Your task to perform on an android device: change notifications settings Image 0: 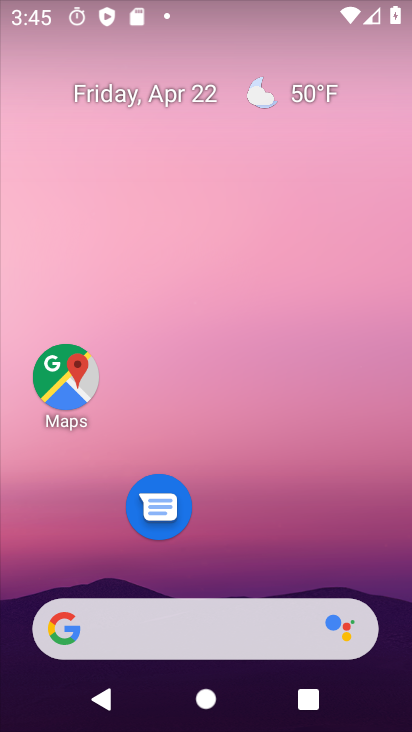
Step 0: drag from (227, 501) to (278, 38)
Your task to perform on an android device: change notifications settings Image 1: 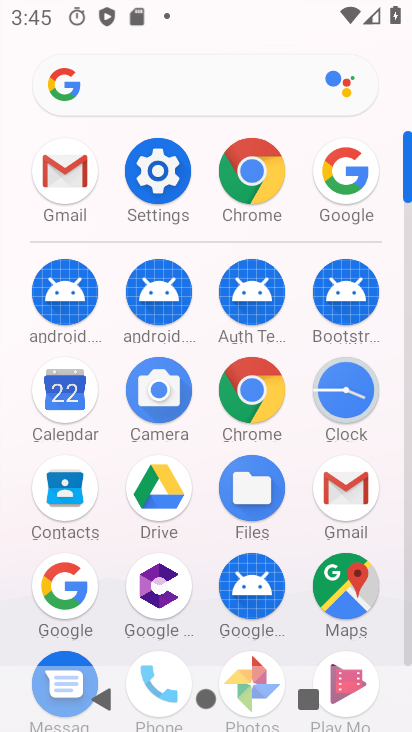
Step 1: click (166, 181)
Your task to perform on an android device: change notifications settings Image 2: 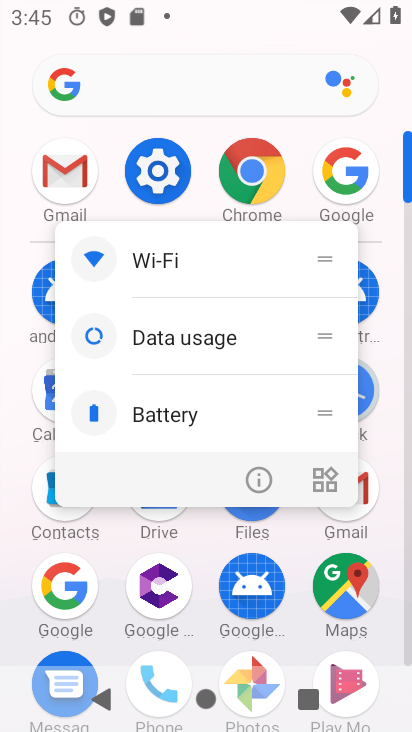
Step 2: click (163, 176)
Your task to perform on an android device: change notifications settings Image 3: 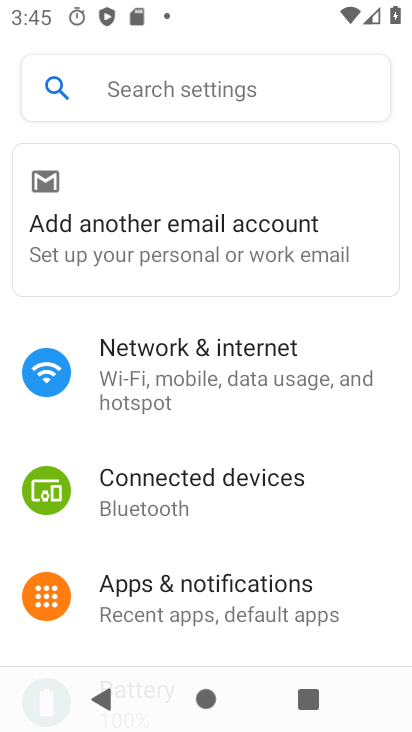
Step 3: click (192, 590)
Your task to perform on an android device: change notifications settings Image 4: 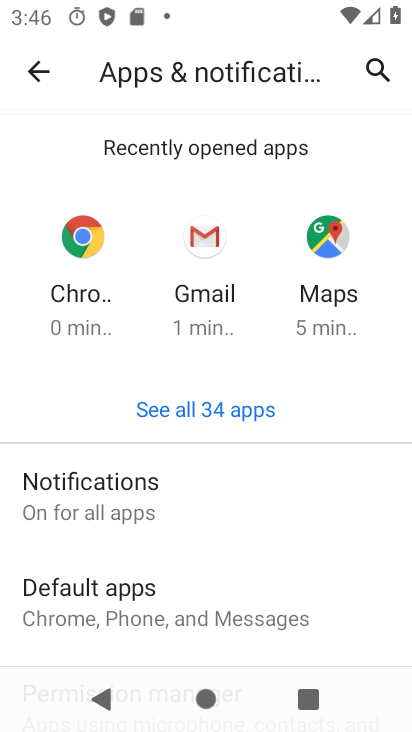
Step 4: drag from (171, 532) to (263, 160)
Your task to perform on an android device: change notifications settings Image 5: 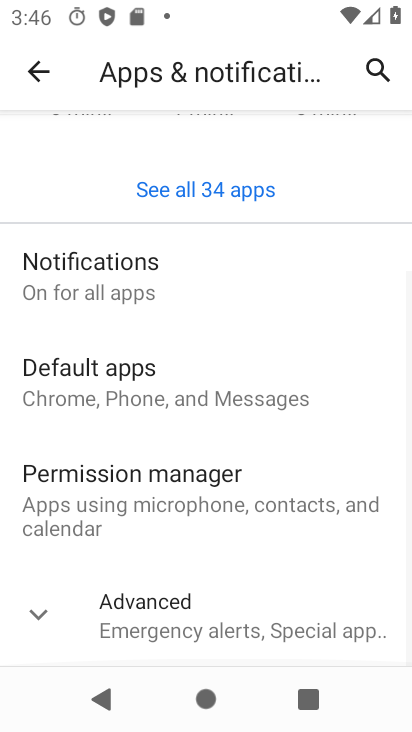
Step 5: click (179, 262)
Your task to perform on an android device: change notifications settings Image 6: 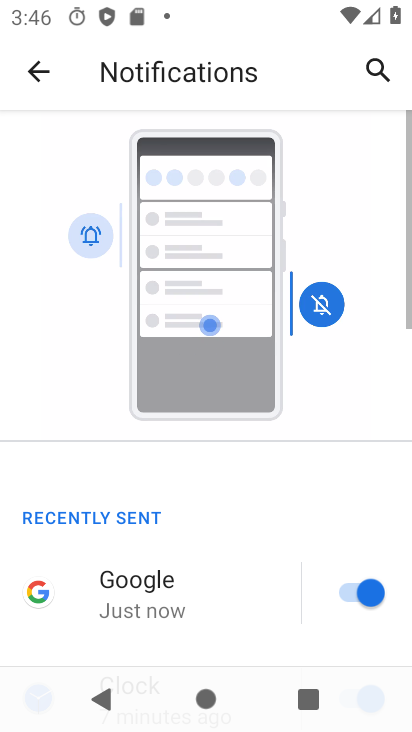
Step 6: drag from (232, 579) to (323, 74)
Your task to perform on an android device: change notifications settings Image 7: 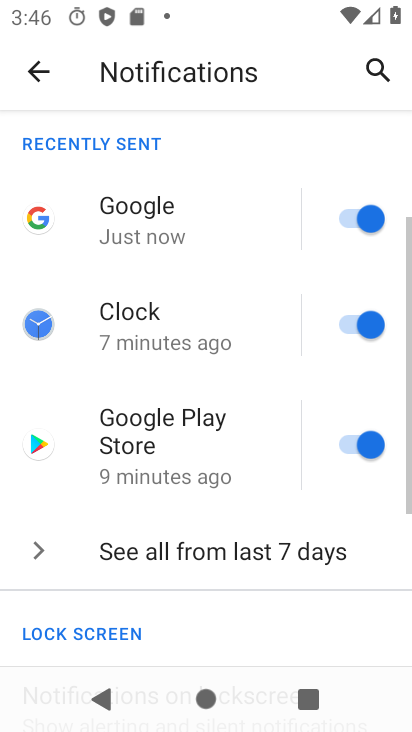
Step 7: drag from (154, 588) to (231, 133)
Your task to perform on an android device: change notifications settings Image 8: 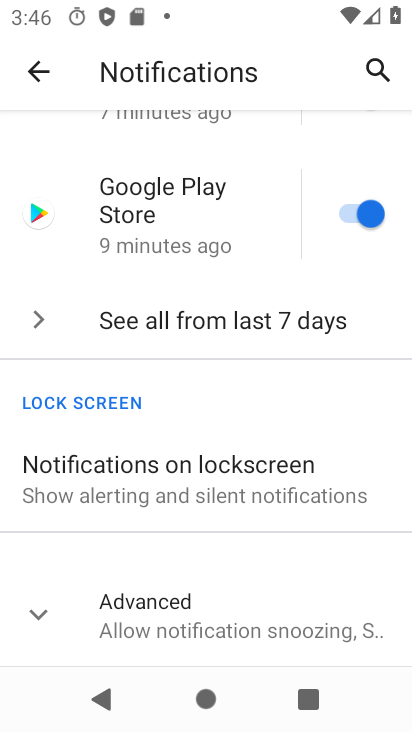
Step 8: click (199, 614)
Your task to perform on an android device: change notifications settings Image 9: 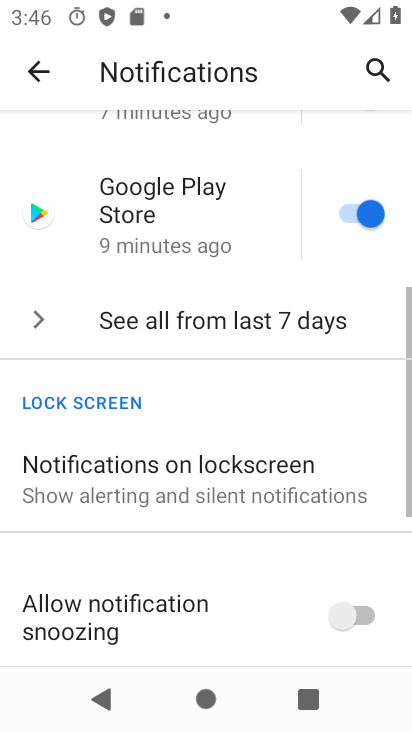
Step 9: drag from (166, 524) to (220, 136)
Your task to perform on an android device: change notifications settings Image 10: 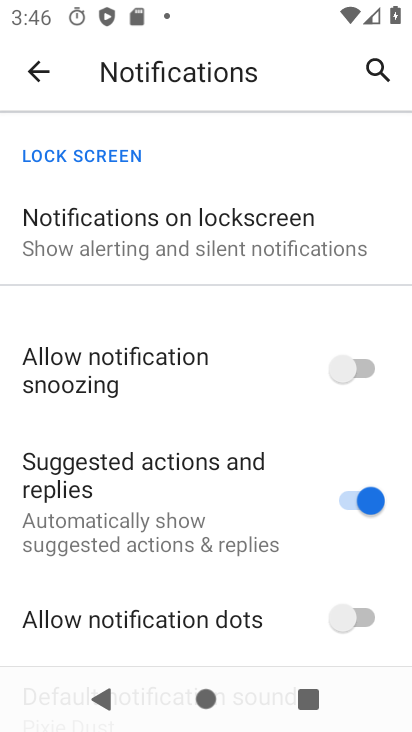
Step 10: click (355, 364)
Your task to perform on an android device: change notifications settings Image 11: 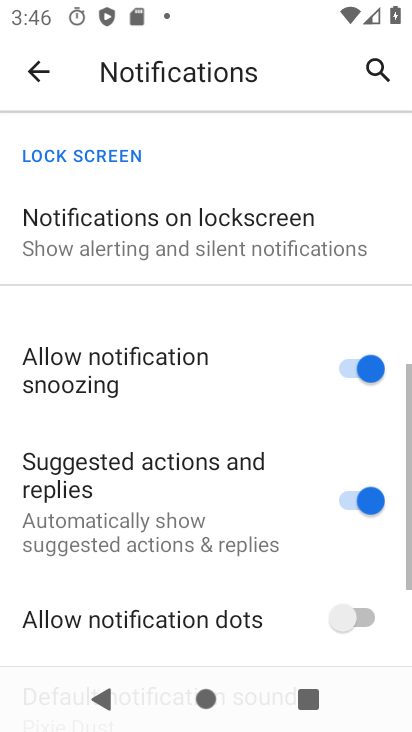
Step 11: task complete